Your task to perform on an android device: clear history in the chrome app Image 0: 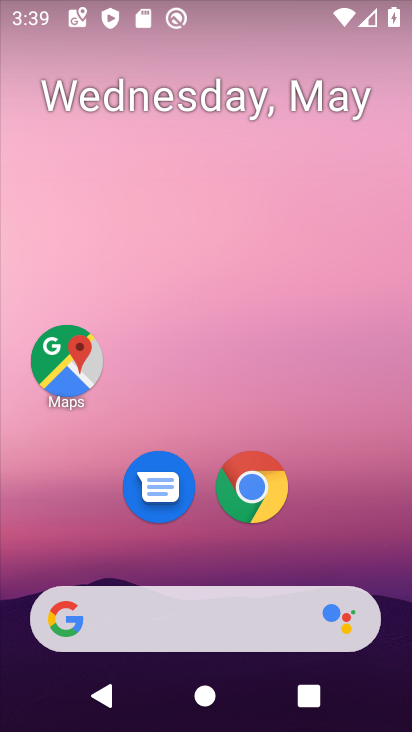
Step 0: drag from (335, 537) to (258, 74)
Your task to perform on an android device: clear history in the chrome app Image 1: 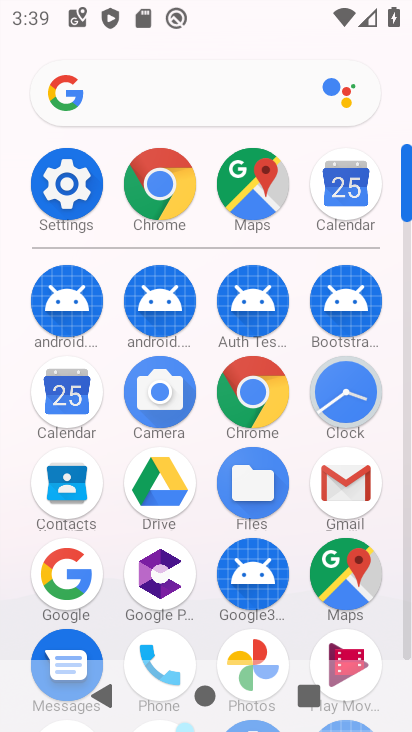
Step 1: drag from (9, 556) to (4, 267)
Your task to perform on an android device: clear history in the chrome app Image 2: 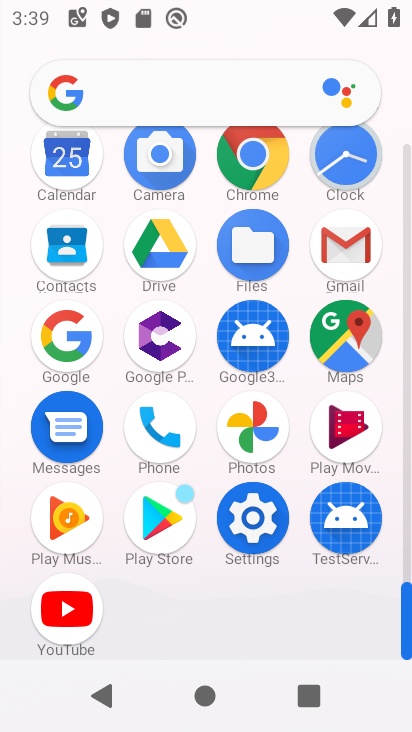
Step 2: click (247, 154)
Your task to perform on an android device: clear history in the chrome app Image 3: 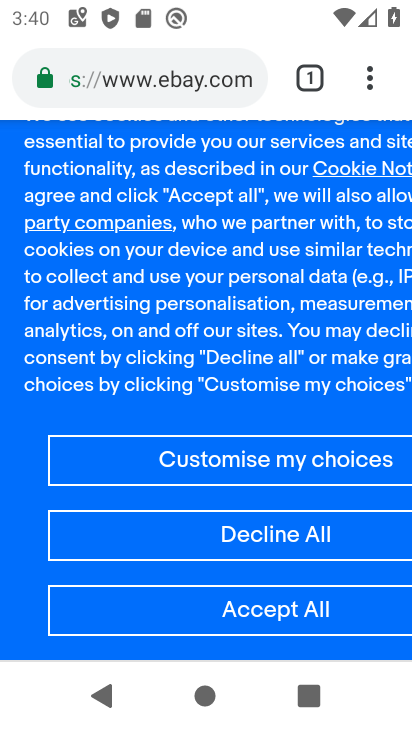
Step 3: drag from (361, 70) to (73, 538)
Your task to perform on an android device: clear history in the chrome app Image 4: 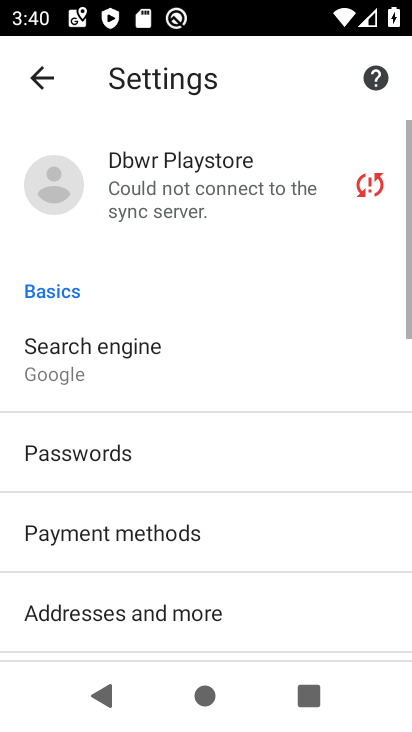
Step 4: drag from (157, 653) to (212, 191)
Your task to perform on an android device: clear history in the chrome app Image 5: 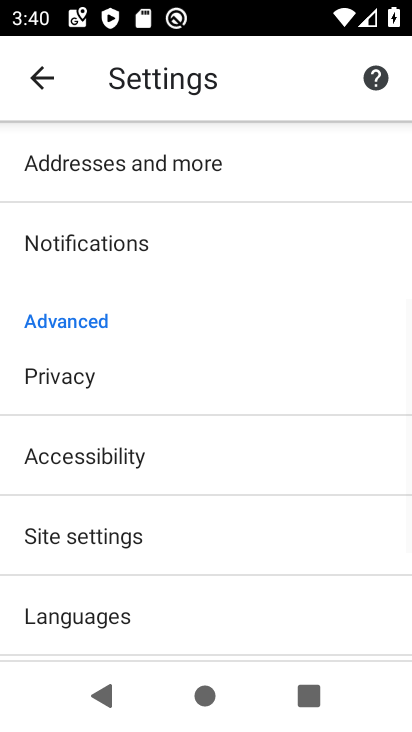
Step 5: drag from (191, 502) to (182, 183)
Your task to perform on an android device: clear history in the chrome app Image 6: 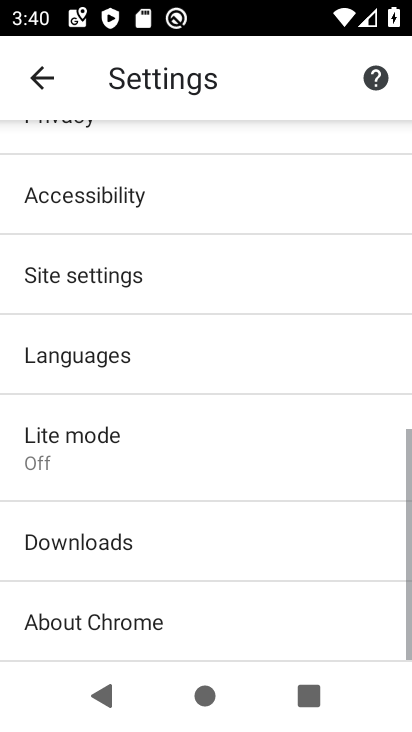
Step 6: drag from (179, 609) to (219, 178)
Your task to perform on an android device: clear history in the chrome app Image 7: 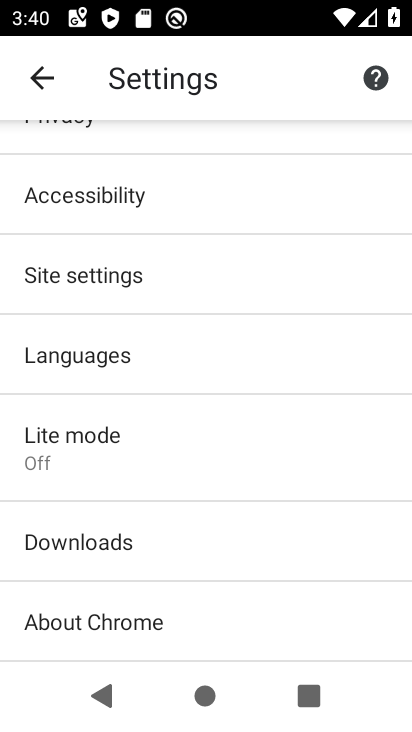
Step 7: drag from (214, 180) to (214, 546)
Your task to perform on an android device: clear history in the chrome app Image 8: 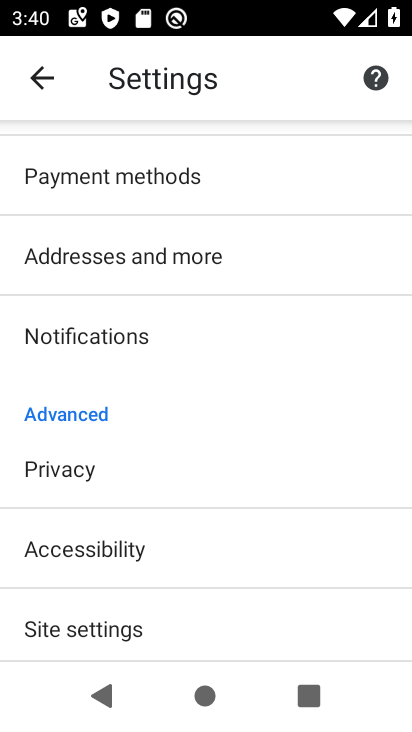
Step 8: drag from (206, 214) to (227, 615)
Your task to perform on an android device: clear history in the chrome app Image 9: 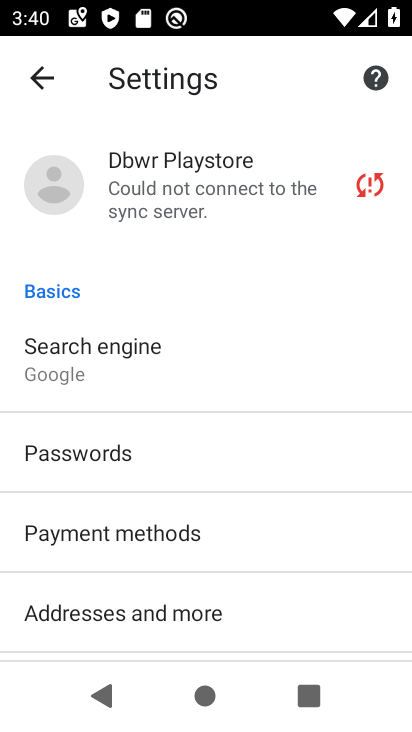
Step 9: drag from (235, 546) to (265, 216)
Your task to perform on an android device: clear history in the chrome app Image 10: 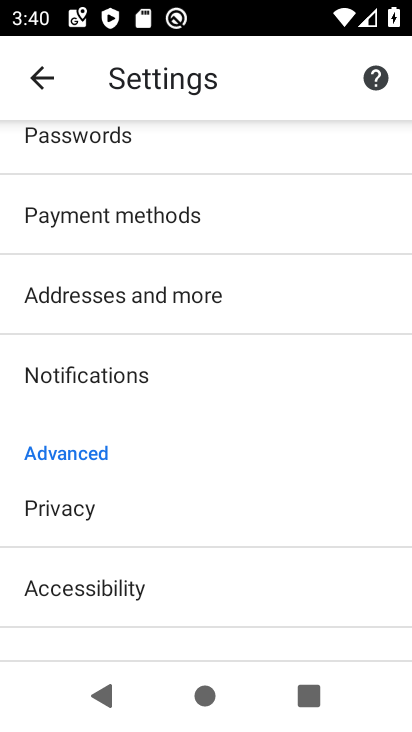
Step 10: click (26, 78)
Your task to perform on an android device: clear history in the chrome app Image 11: 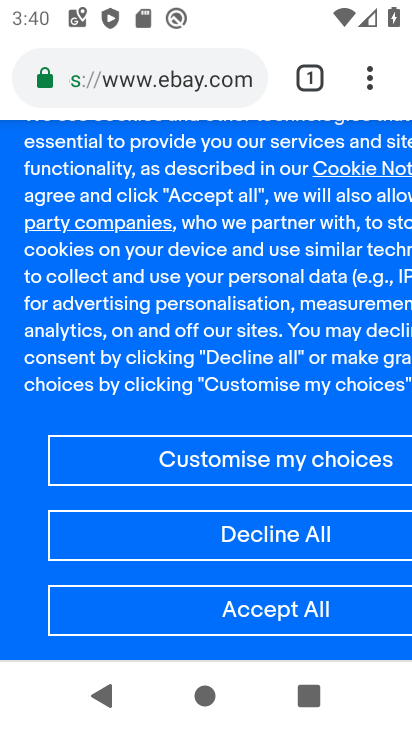
Step 11: drag from (379, 78) to (92, 441)
Your task to perform on an android device: clear history in the chrome app Image 12: 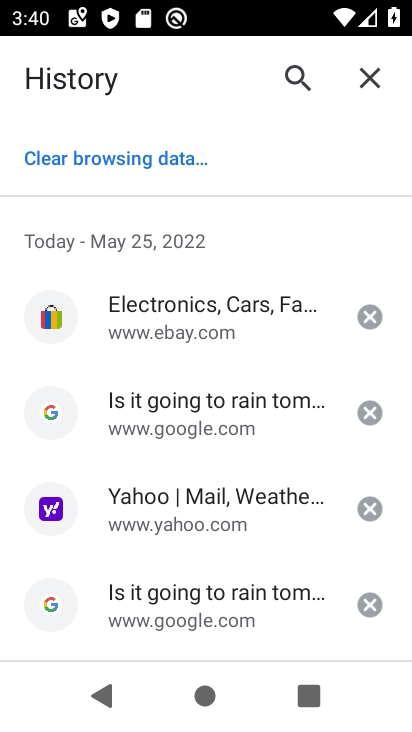
Step 12: drag from (225, 559) to (212, 598)
Your task to perform on an android device: clear history in the chrome app Image 13: 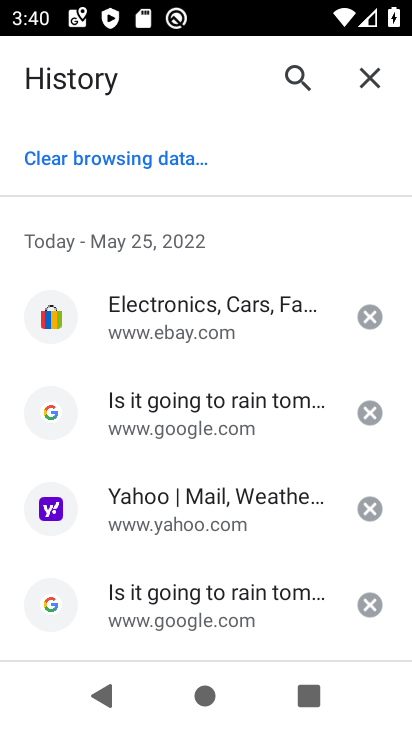
Step 13: click (122, 170)
Your task to perform on an android device: clear history in the chrome app Image 14: 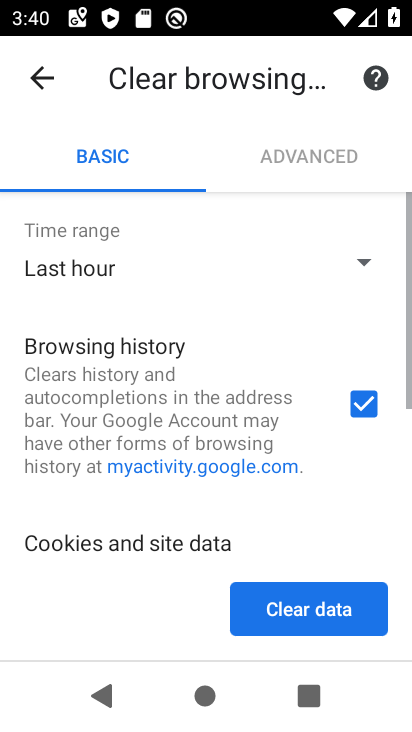
Step 14: click (302, 605)
Your task to perform on an android device: clear history in the chrome app Image 15: 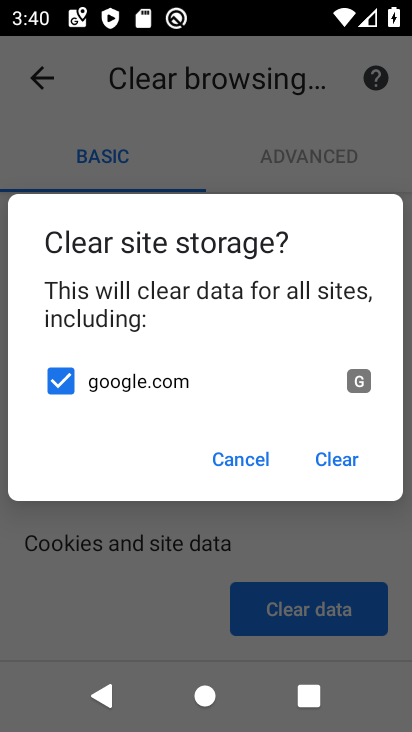
Step 15: click (347, 458)
Your task to perform on an android device: clear history in the chrome app Image 16: 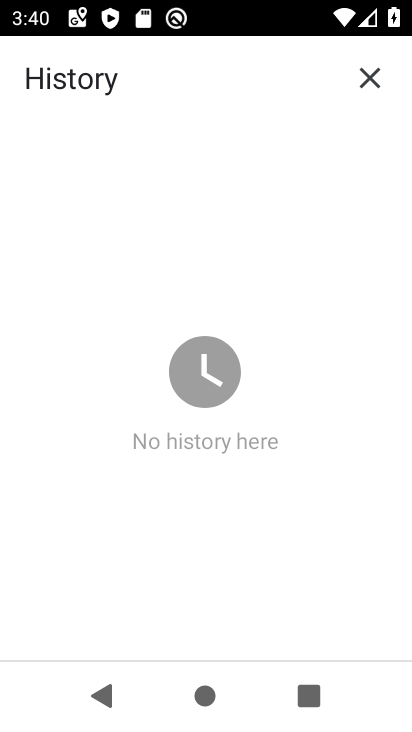
Step 16: task complete